Your task to perform on an android device: Search for asus zenbook on bestbuy.com, select the first entry, and add it to the cart. Image 0: 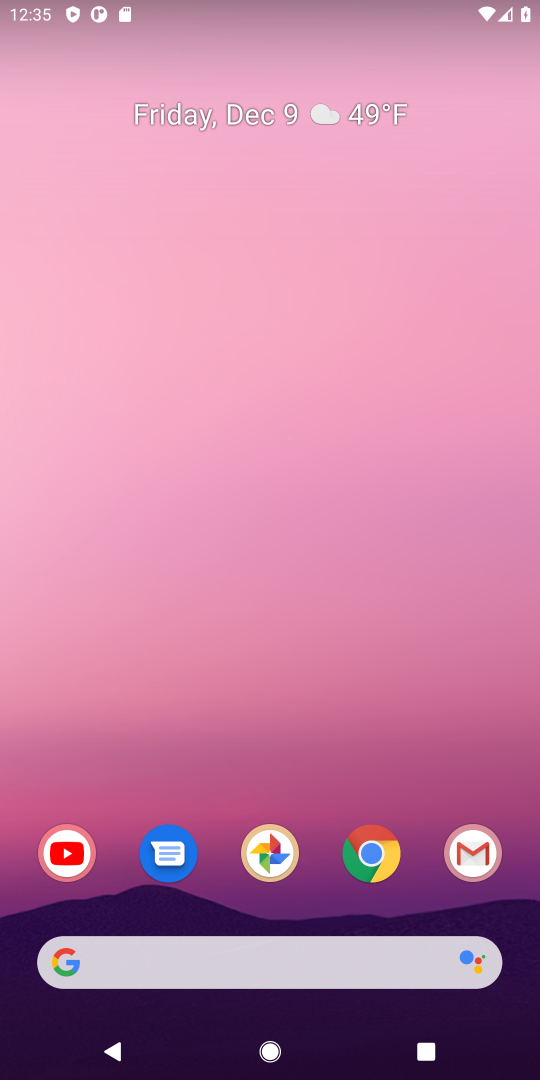
Step 0: drag from (288, 932) to (386, 227)
Your task to perform on an android device: Search for asus zenbook on bestbuy.com, select the first entry, and add it to the cart. Image 1: 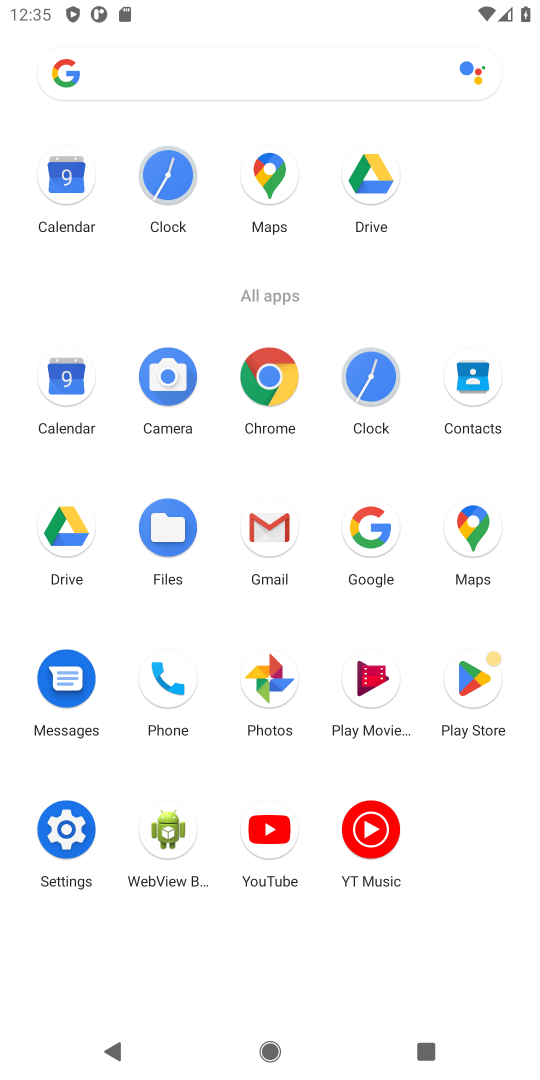
Step 1: click (364, 523)
Your task to perform on an android device: Search for asus zenbook on bestbuy.com, select the first entry, and add it to the cart. Image 2: 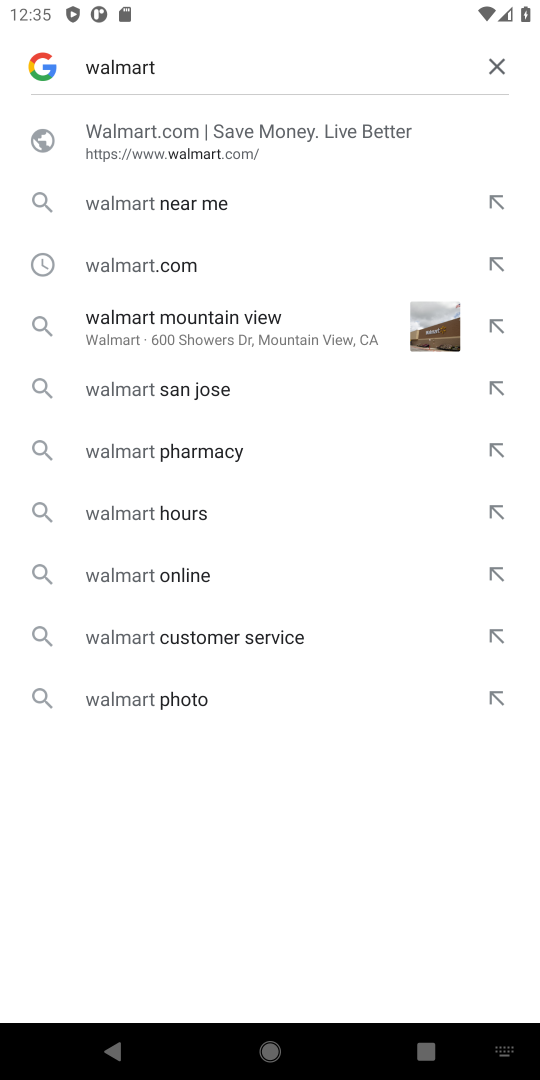
Step 2: click (498, 73)
Your task to perform on an android device: Search for asus zenbook on bestbuy.com, select the first entry, and add it to the cart. Image 3: 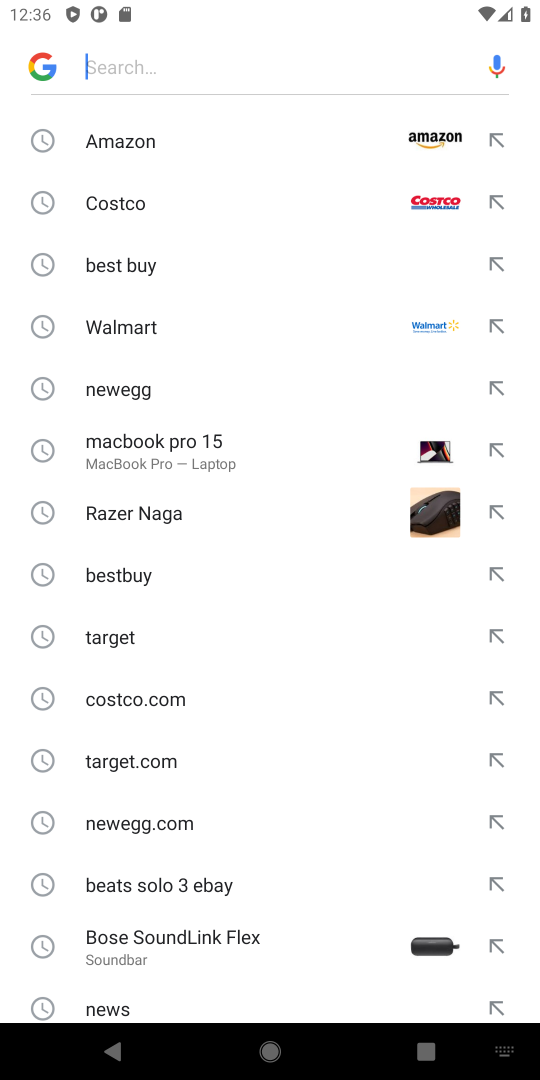
Step 3: click (110, 263)
Your task to perform on an android device: Search for asus zenbook on bestbuy.com, select the first entry, and add it to the cart. Image 4: 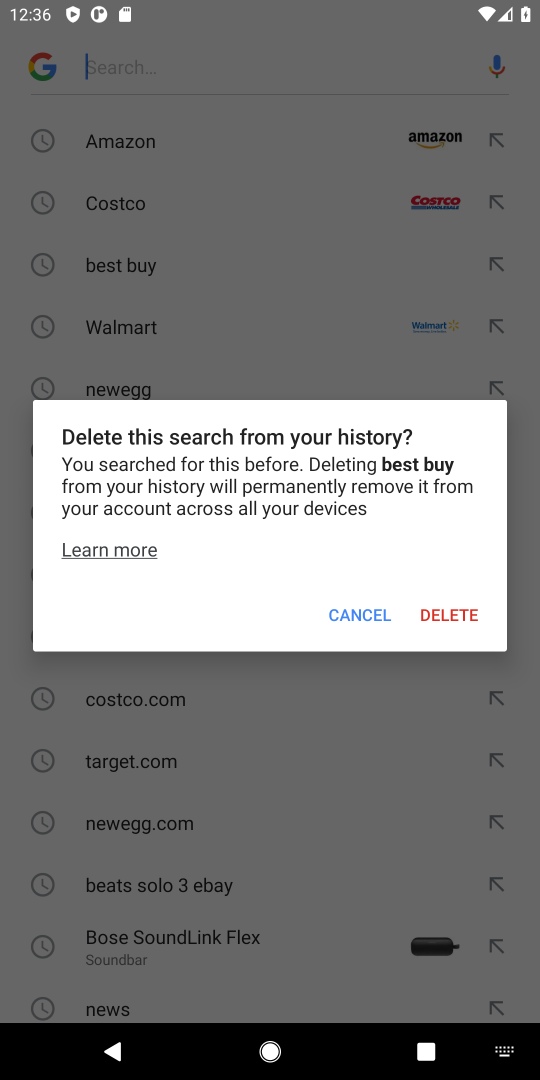
Step 4: click (340, 615)
Your task to perform on an android device: Search for asus zenbook on bestbuy.com, select the first entry, and add it to the cart. Image 5: 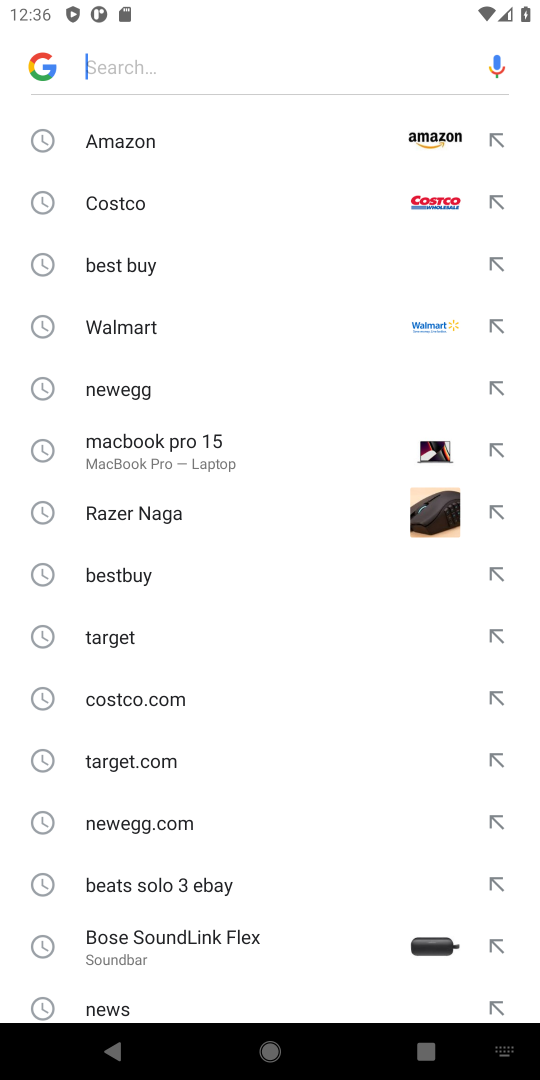
Step 5: click (496, 261)
Your task to perform on an android device: Search for asus zenbook on bestbuy.com, select the first entry, and add it to the cart. Image 6: 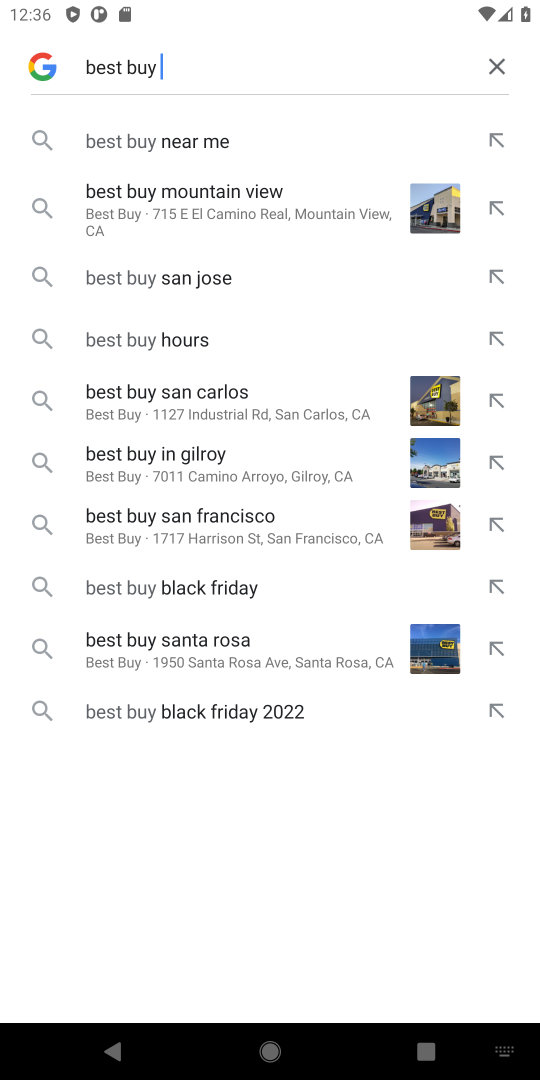
Step 6: click (195, 64)
Your task to perform on an android device: Search for asus zenbook on bestbuy.com, select the first entry, and add it to the cart. Image 7: 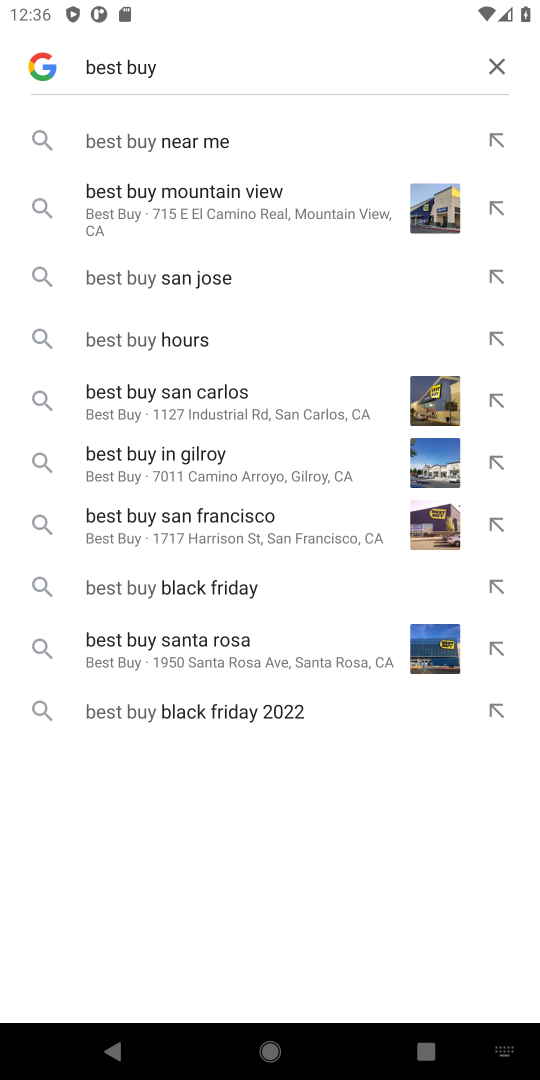
Step 7: click (127, 280)
Your task to perform on an android device: Search for asus zenbook on bestbuy.com, select the first entry, and add it to the cart. Image 8: 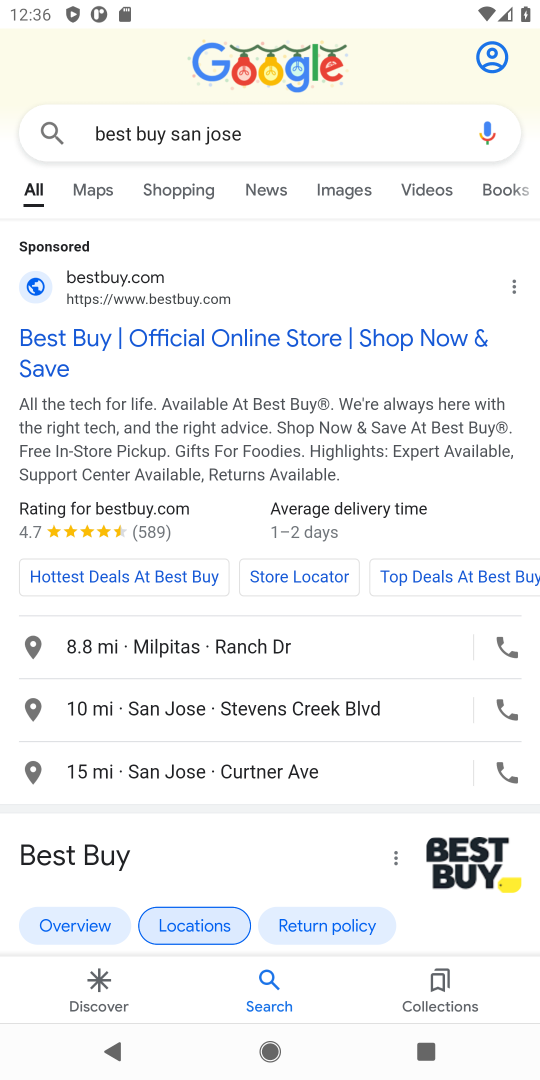
Step 8: click (249, 332)
Your task to perform on an android device: Search for asus zenbook on bestbuy.com, select the first entry, and add it to the cart. Image 9: 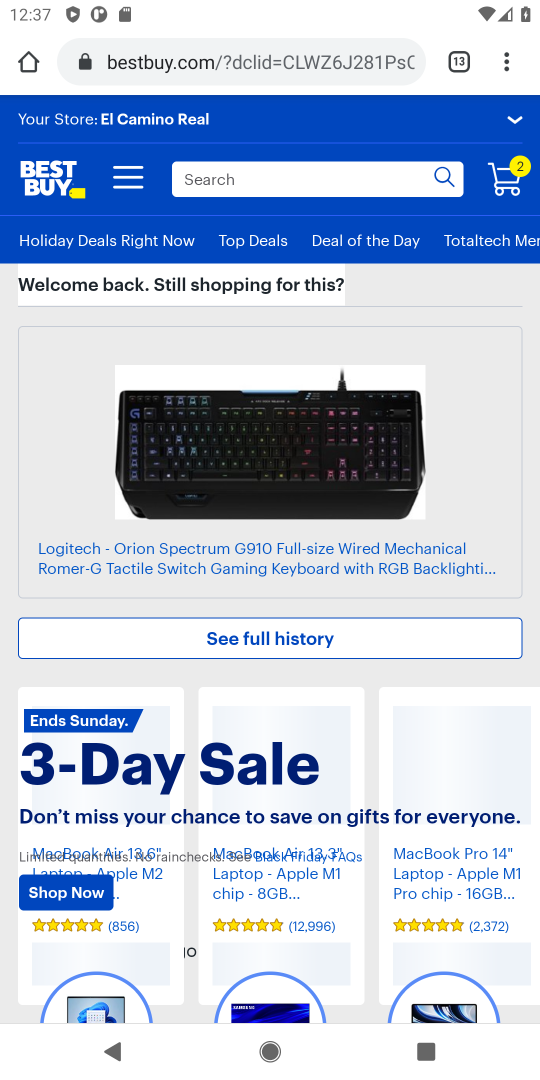
Step 9: click (231, 177)
Your task to perform on an android device: Search for asus zenbook on bestbuy.com, select the first entry, and add it to the cart. Image 10: 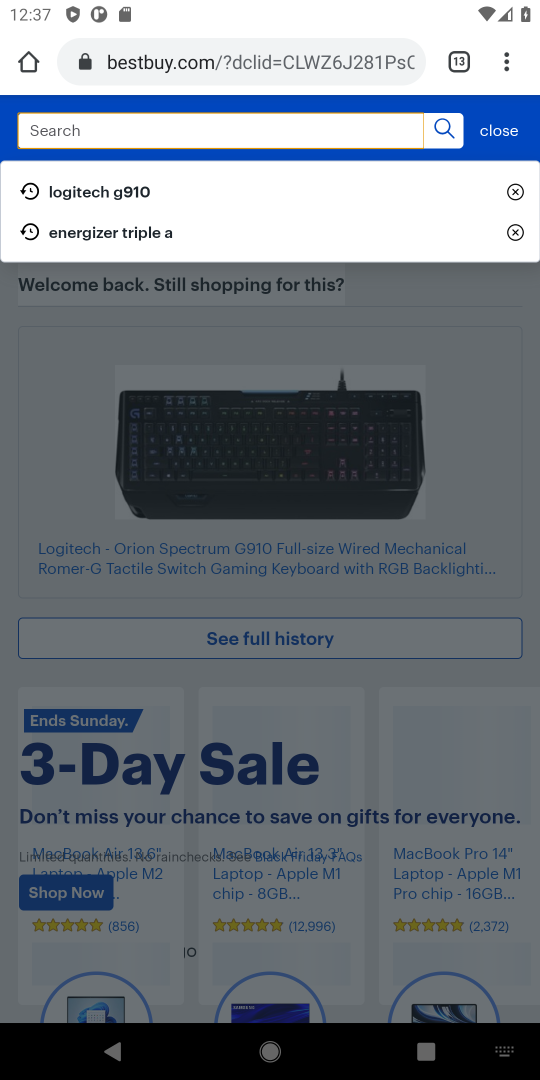
Step 10: click (130, 124)
Your task to perform on an android device: Search for asus zenbook on bestbuy.com, select the first entry, and add it to the cart. Image 11: 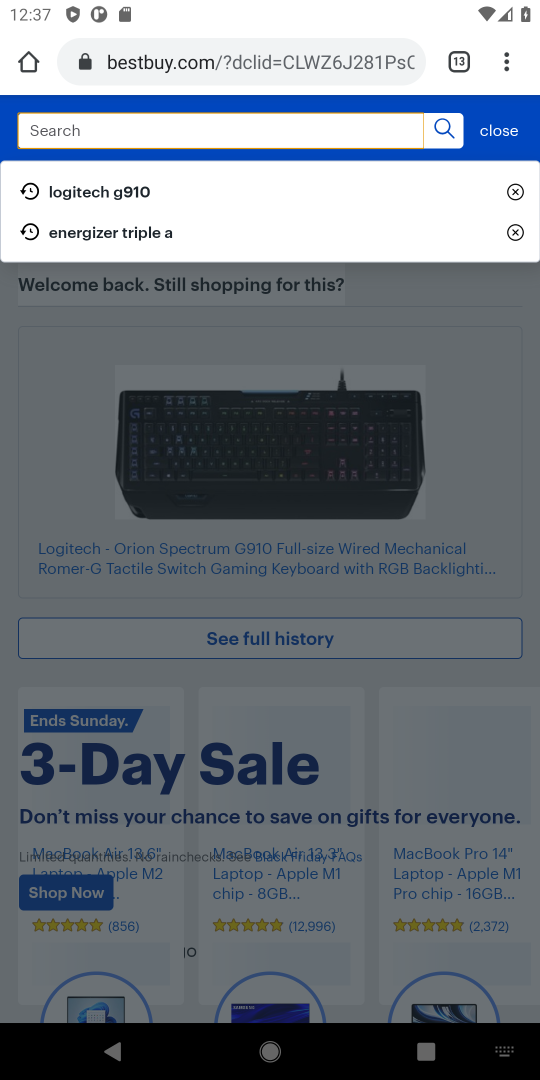
Step 11: type "asus zenbook "
Your task to perform on an android device: Search for asus zenbook on bestbuy.com, select the first entry, and add it to the cart. Image 12: 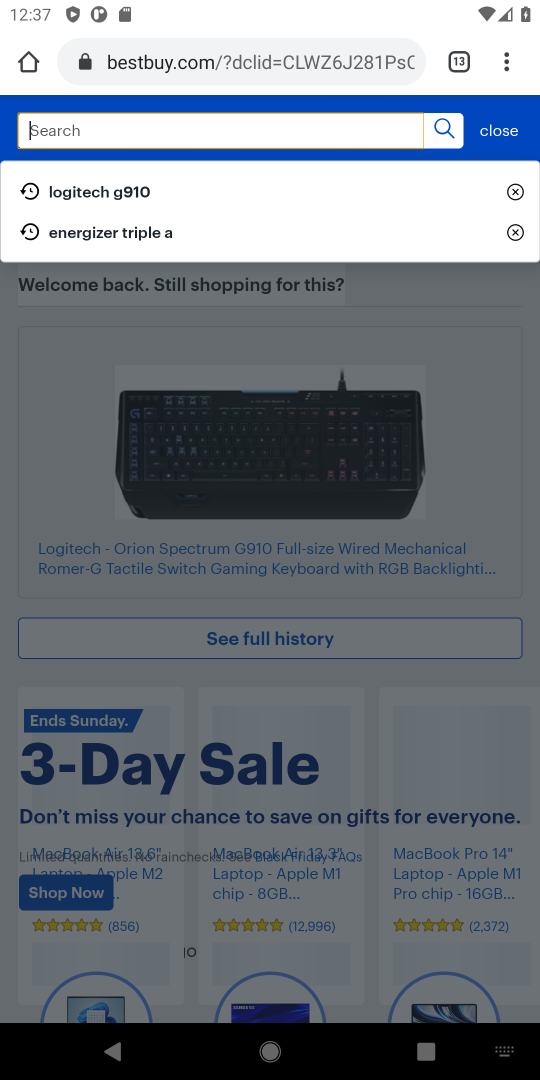
Step 12: click (441, 130)
Your task to perform on an android device: Search for asus zenbook on bestbuy.com, select the first entry, and add it to the cart. Image 13: 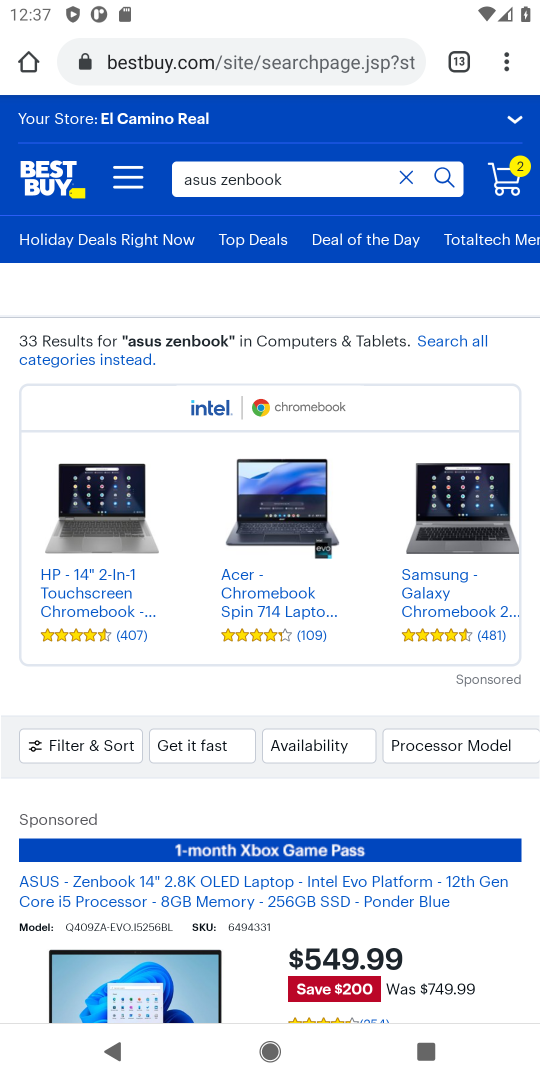
Step 13: drag from (265, 964) to (314, 356)
Your task to perform on an android device: Search for asus zenbook on bestbuy.com, select the first entry, and add it to the cart. Image 14: 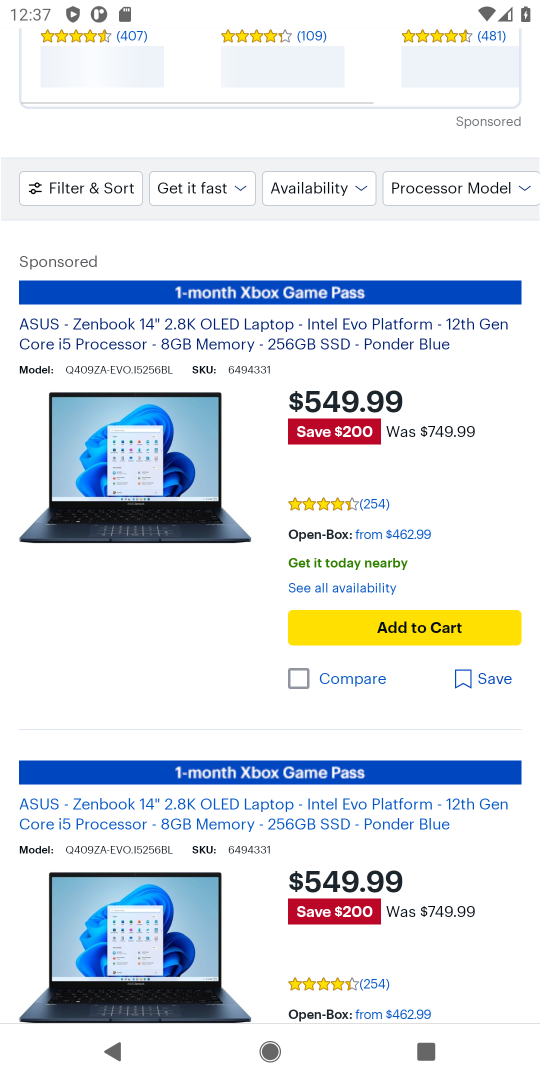
Step 14: click (408, 591)
Your task to perform on an android device: Search for asus zenbook on bestbuy.com, select the first entry, and add it to the cart. Image 15: 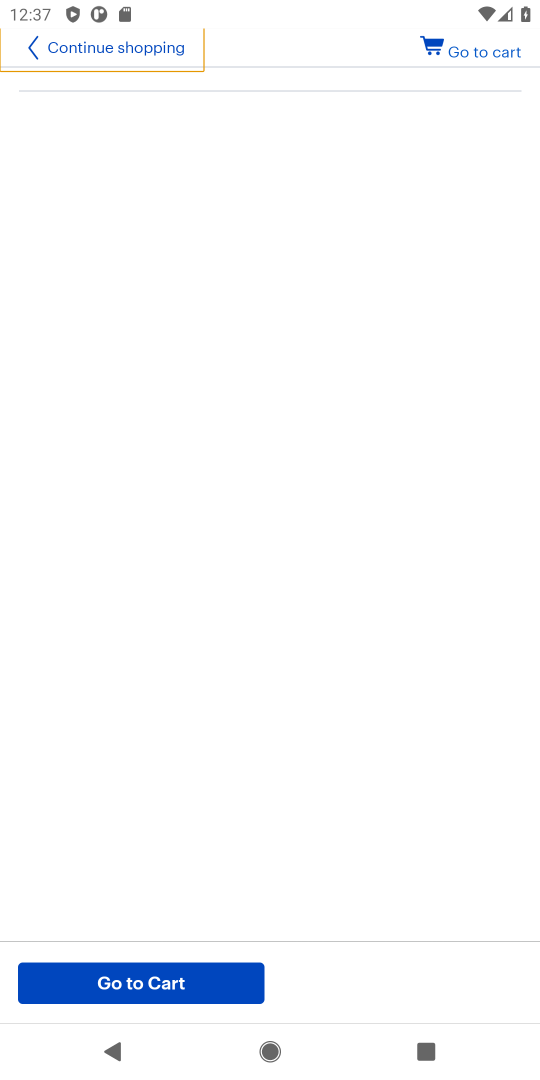
Step 15: task complete